Your task to perform on an android device: choose inbox layout in the gmail app Image 0: 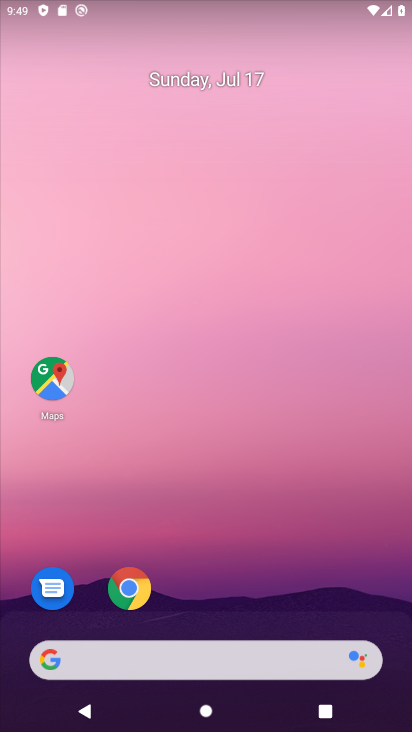
Step 0: drag from (306, 601) to (225, 158)
Your task to perform on an android device: choose inbox layout in the gmail app Image 1: 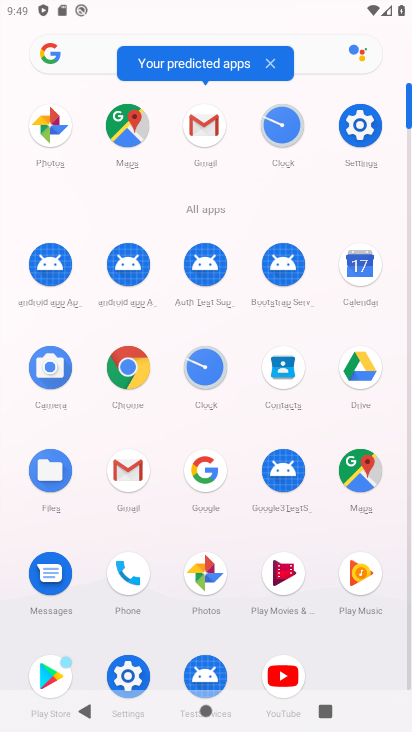
Step 1: click (216, 135)
Your task to perform on an android device: choose inbox layout in the gmail app Image 2: 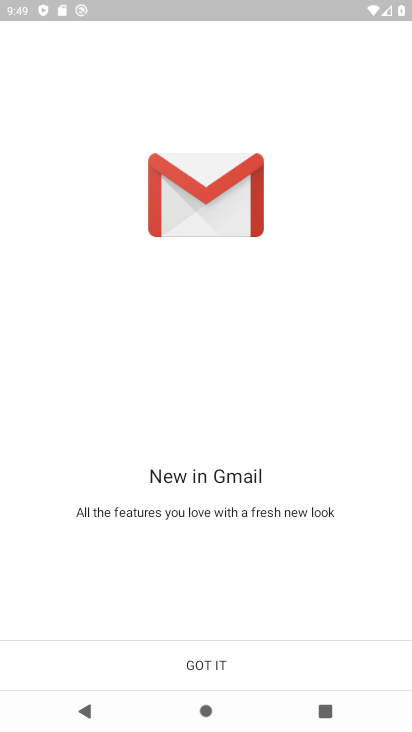
Step 2: click (227, 669)
Your task to perform on an android device: choose inbox layout in the gmail app Image 3: 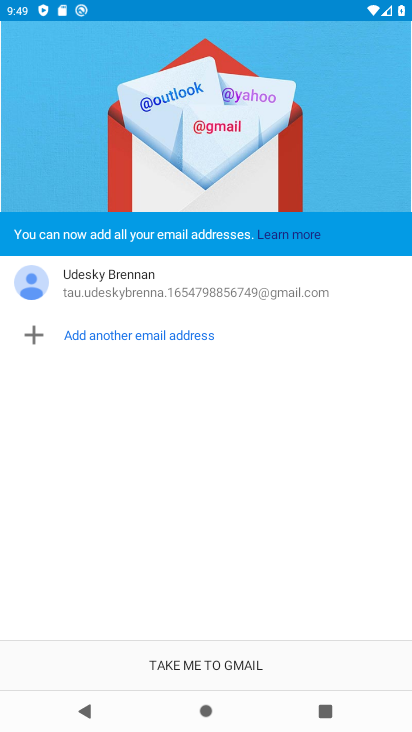
Step 3: click (227, 669)
Your task to perform on an android device: choose inbox layout in the gmail app Image 4: 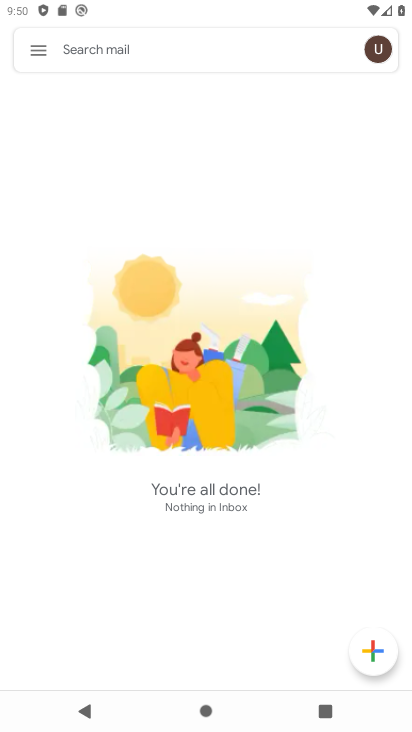
Step 4: click (32, 61)
Your task to perform on an android device: choose inbox layout in the gmail app Image 5: 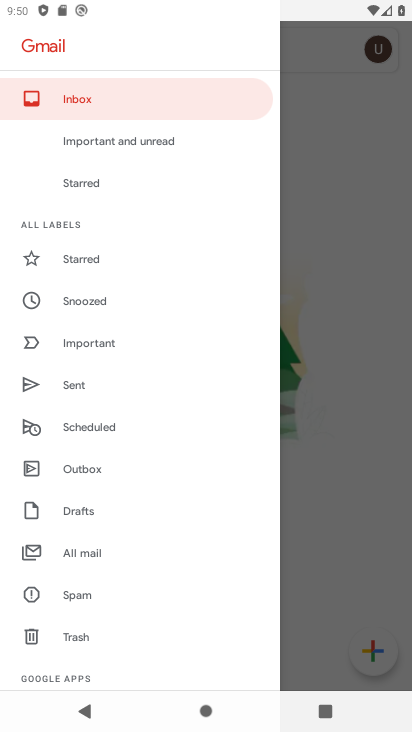
Step 5: drag from (121, 661) to (102, 333)
Your task to perform on an android device: choose inbox layout in the gmail app Image 6: 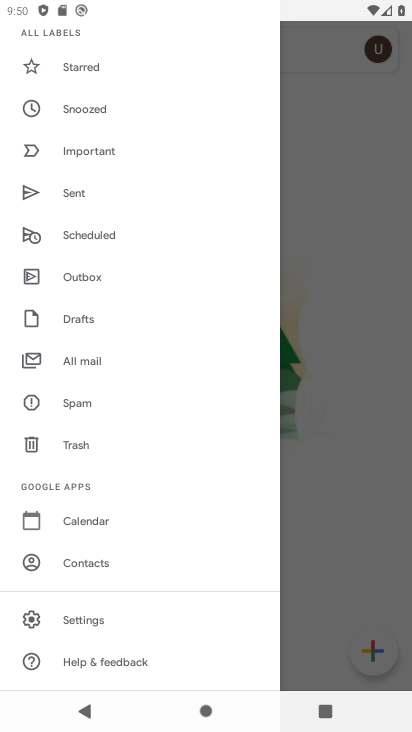
Step 6: click (112, 617)
Your task to perform on an android device: choose inbox layout in the gmail app Image 7: 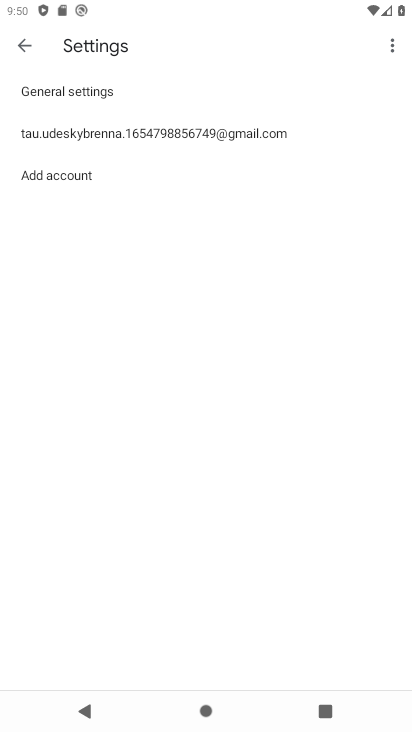
Step 7: click (272, 137)
Your task to perform on an android device: choose inbox layout in the gmail app Image 8: 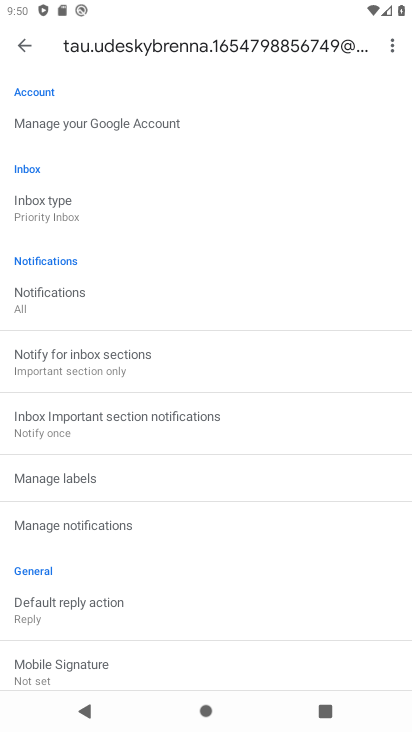
Step 8: click (83, 207)
Your task to perform on an android device: choose inbox layout in the gmail app Image 9: 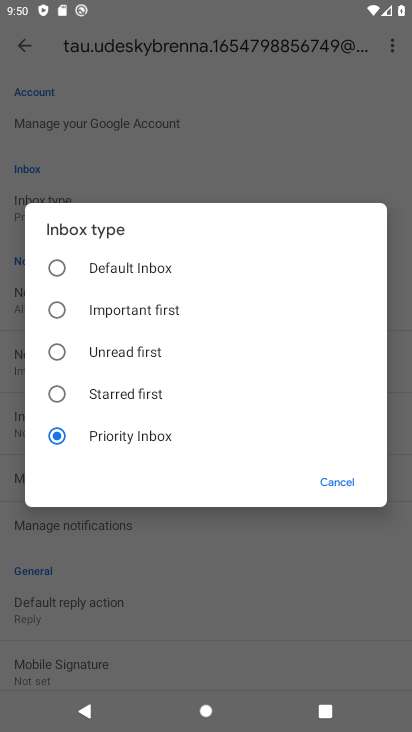
Step 9: click (136, 299)
Your task to perform on an android device: choose inbox layout in the gmail app Image 10: 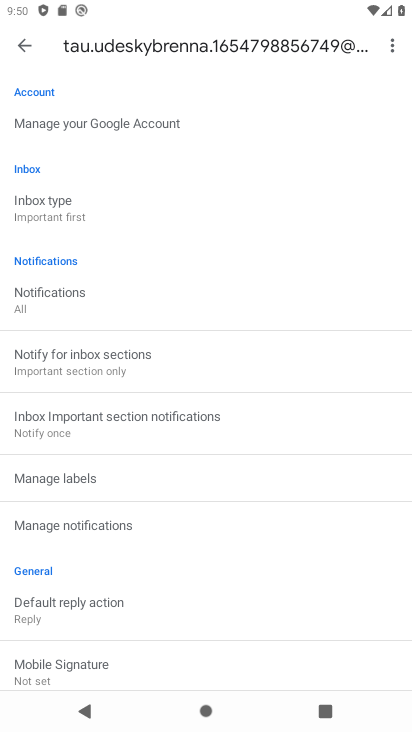
Step 10: task complete